Your task to perform on an android device: turn pop-ups off in chrome Image 0: 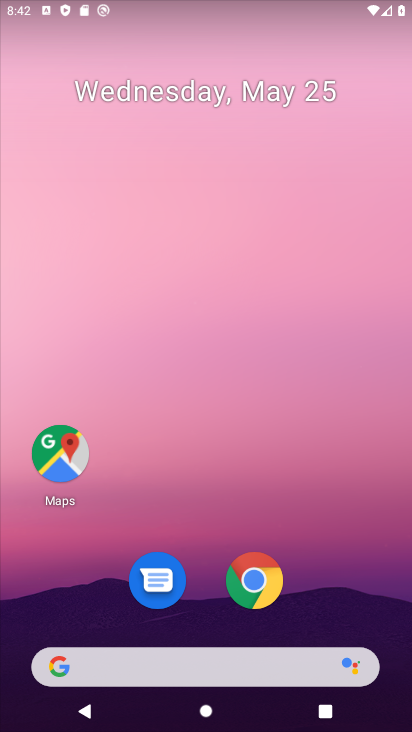
Step 0: press home button
Your task to perform on an android device: turn pop-ups off in chrome Image 1: 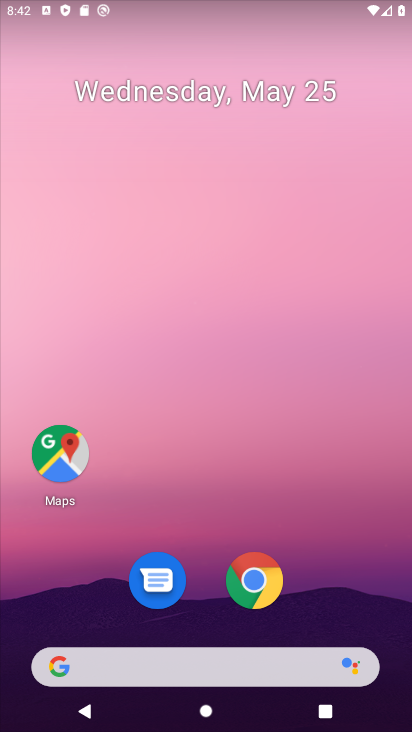
Step 1: click (249, 578)
Your task to perform on an android device: turn pop-ups off in chrome Image 2: 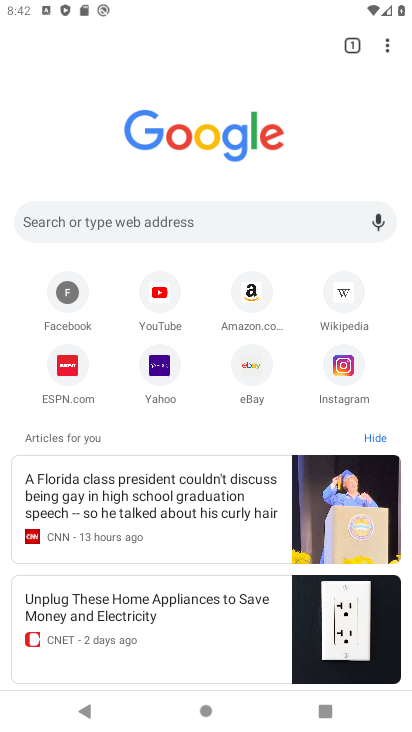
Step 2: click (387, 41)
Your task to perform on an android device: turn pop-ups off in chrome Image 3: 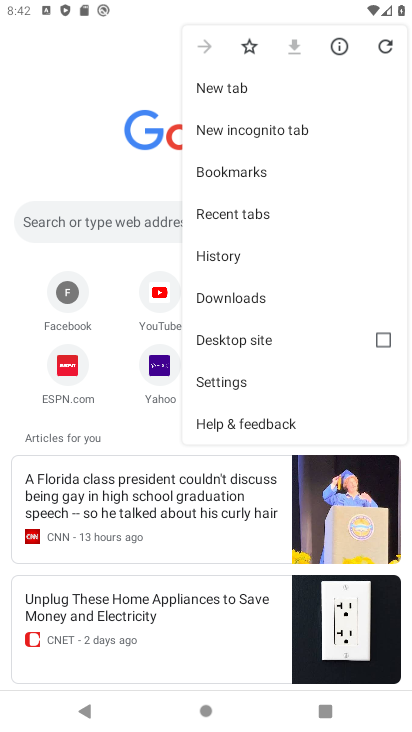
Step 3: click (240, 374)
Your task to perform on an android device: turn pop-ups off in chrome Image 4: 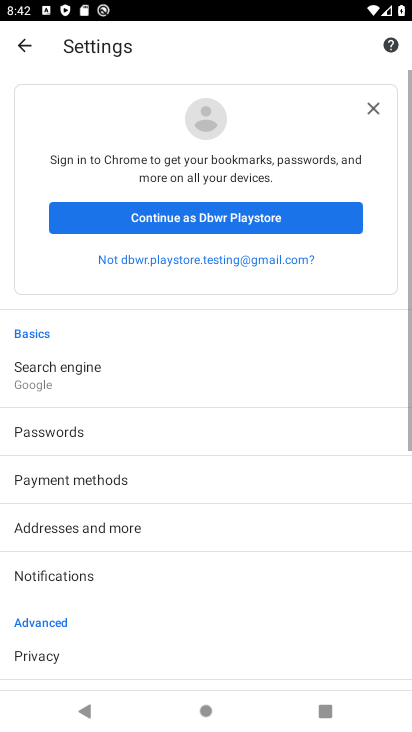
Step 4: drag from (16, 608) to (230, 111)
Your task to perform on an android device: turn pop-ups off in chrome Image 5: 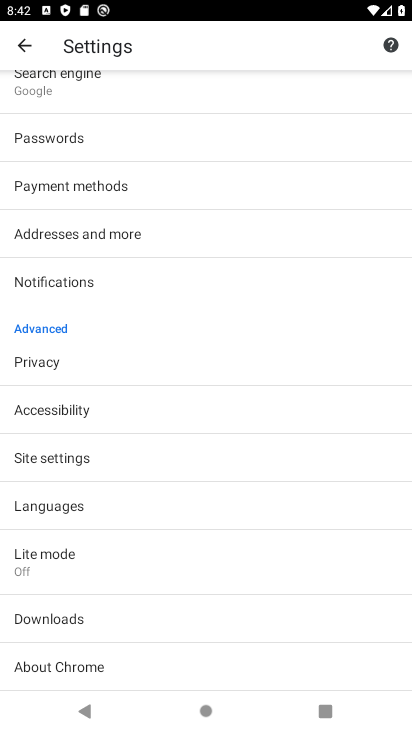
Step 5: click (132, 464)
Your task to perform on an android device: turn pop-ups off in chrome Image 6: 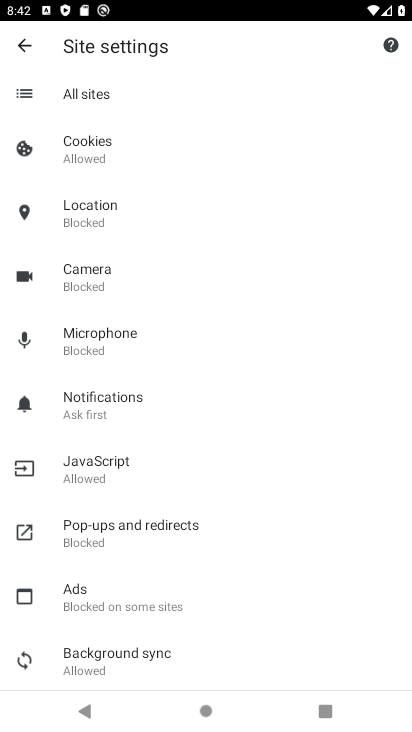
Step 6: click (108, 527)
Your task to perform on an android device: turn pop-ups off in chrome Image 7: 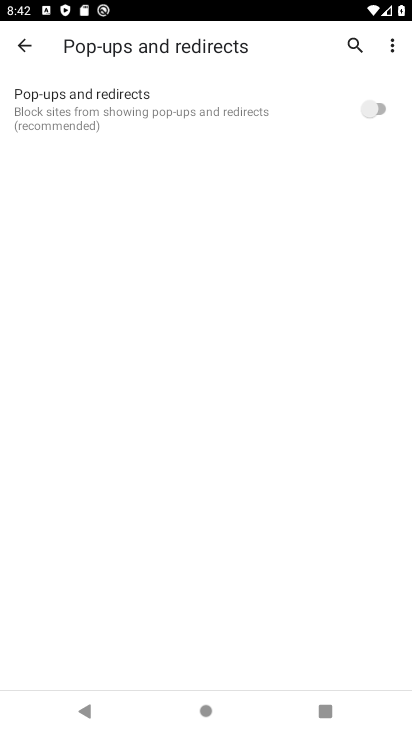
Step 7: task complete